Your task to perform on an android device: open app "ColorNote Notepad Notes" (install if not already installed), go to login, and select forgot password Image 0: 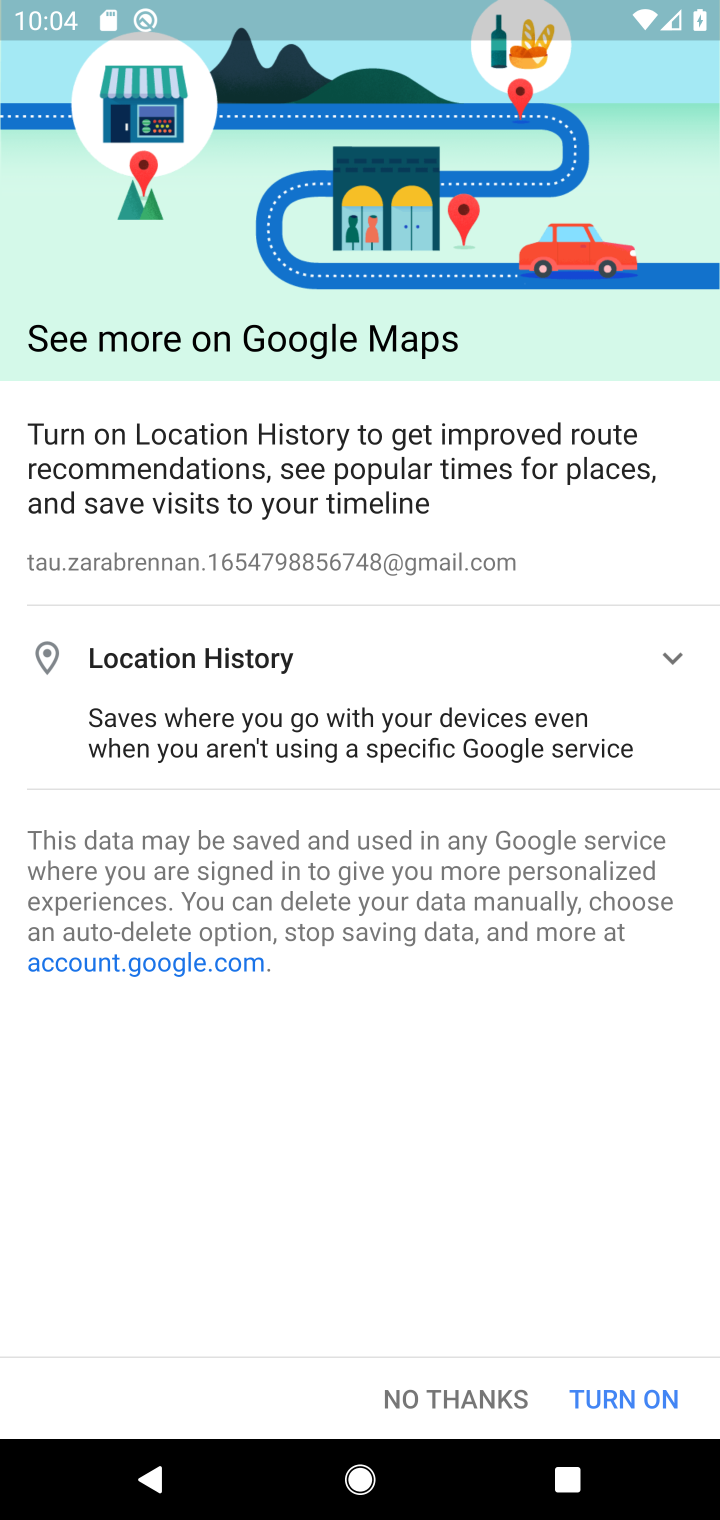
Step 0: press home button
Your task to perform on an android device: open app "ColorNote Notepad Notes" (install if not already installed), go to login, and select forgot password Image 1: 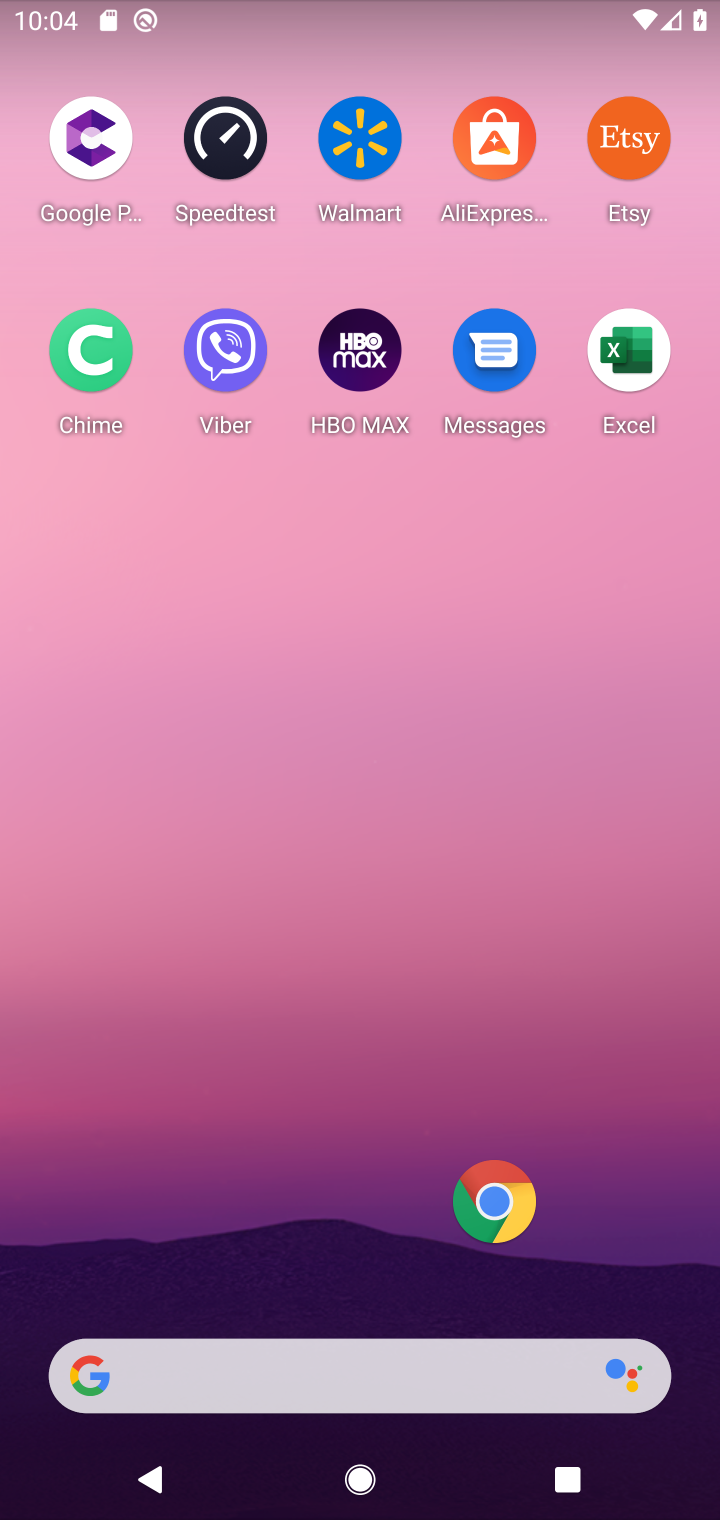
Step 1: drag from (314, 1191) to (380, 297)
Your task to perform on an android device: open app "ColorNote Notepad Notes" (install if not already installed), go to login, and select forgot password Image 2: 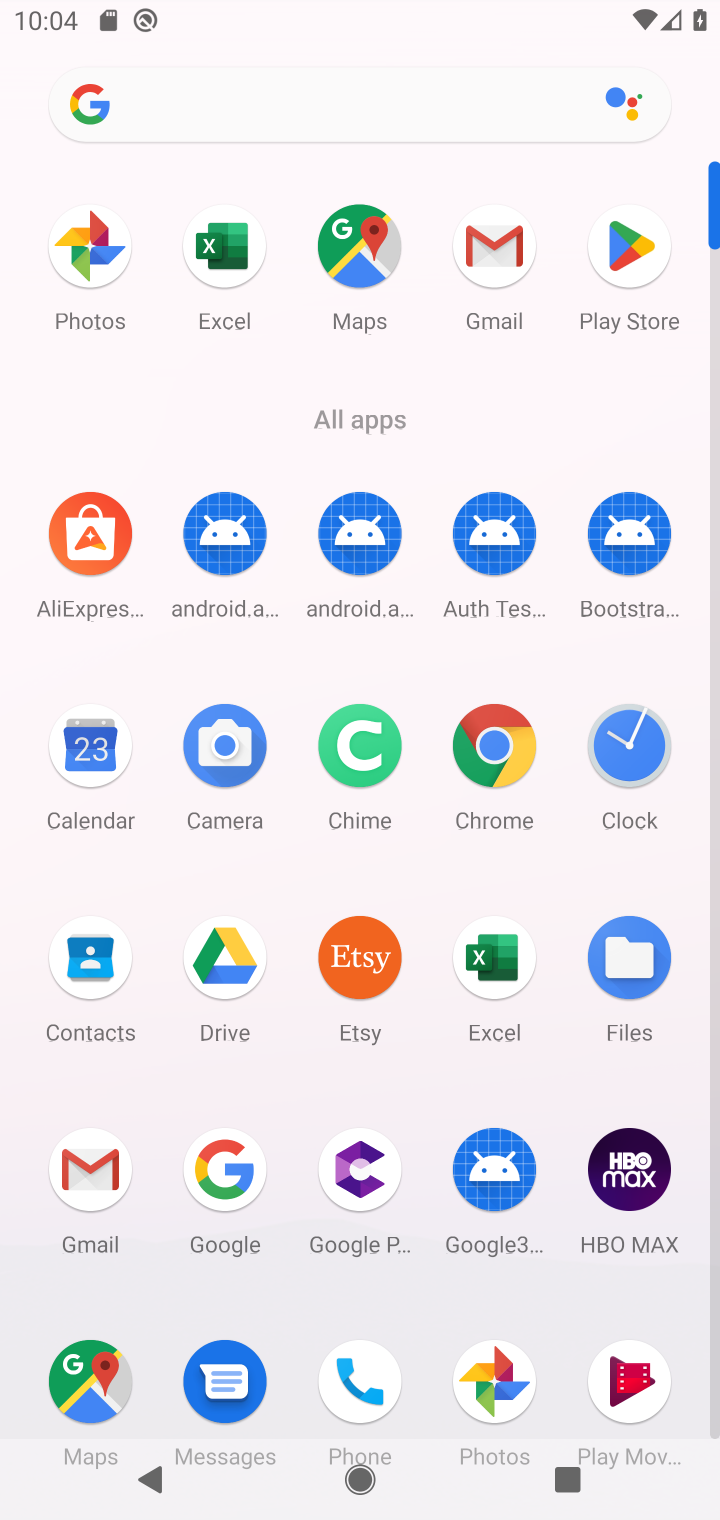
Step 2: click (618, 234)
Your task to perform on an android device: open app "ColorNote Notepad Notes" (install if not already installed), go to login, and select forgot password Image 3: 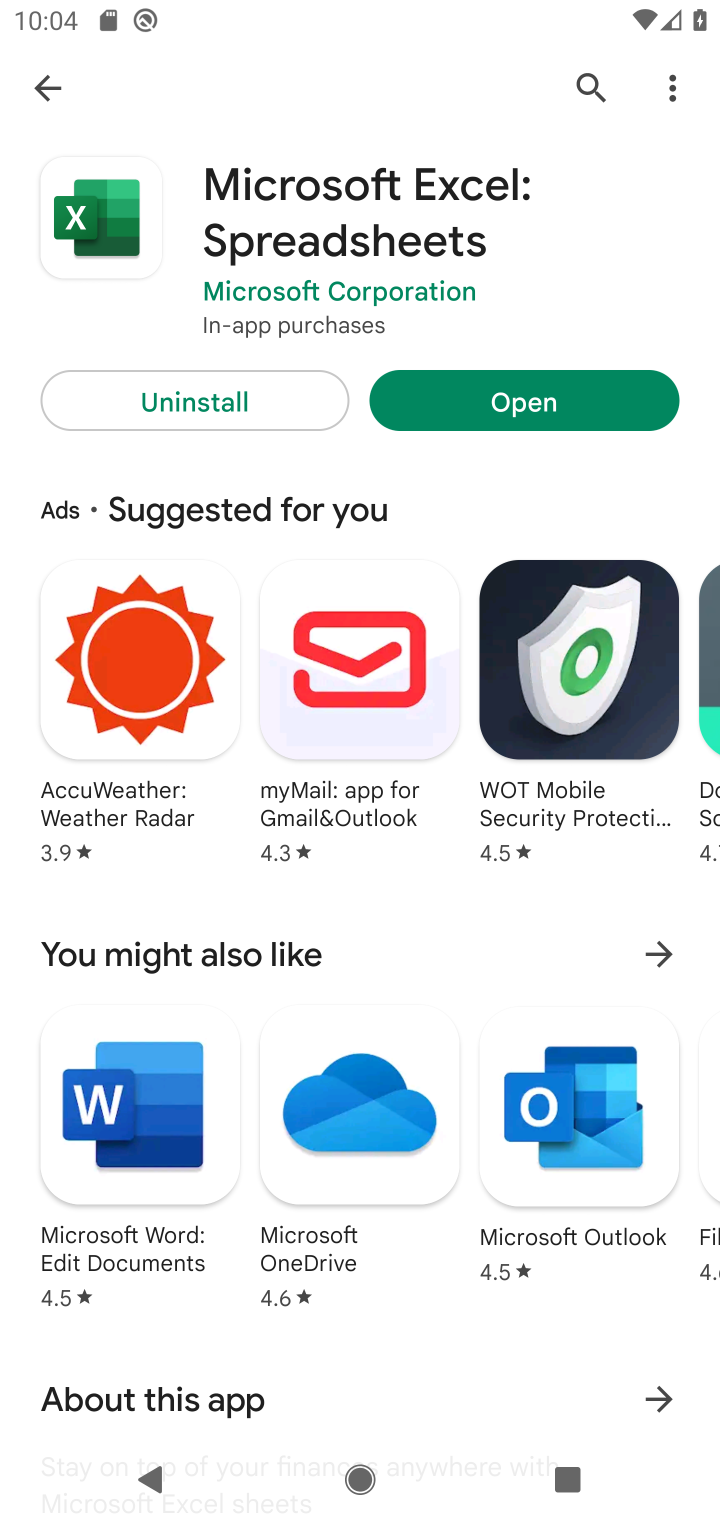
Step 3: click (43, 77)
Your task to perform on an android device: open app "ColorNote Notepad Notes" (install if not already installed), go to login, and select forgot password Image 4: 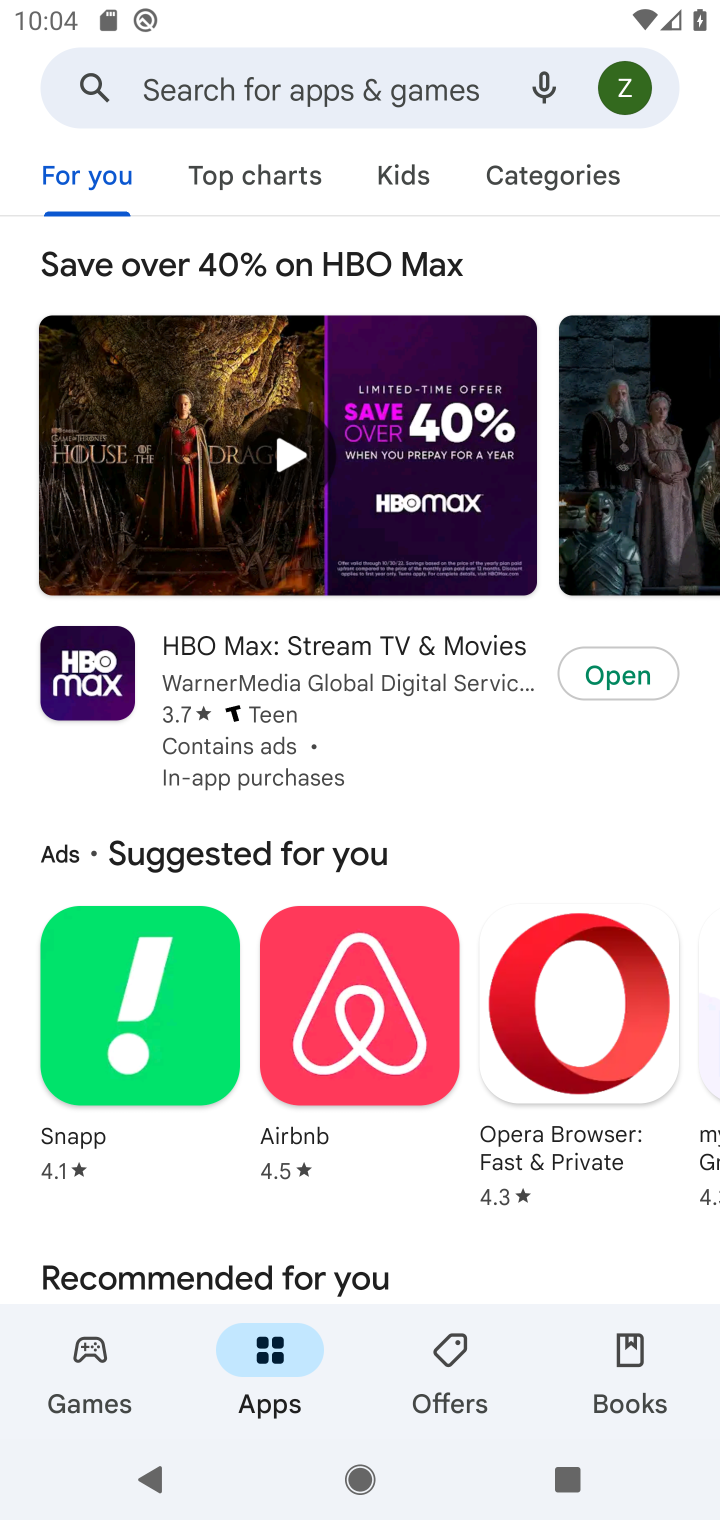
Step 4: click (239, 78)
Your task to perform on an android device: open app "ColorNote Notepad Notes" (install if not already installed), go to login, and select forgot password Image 5: 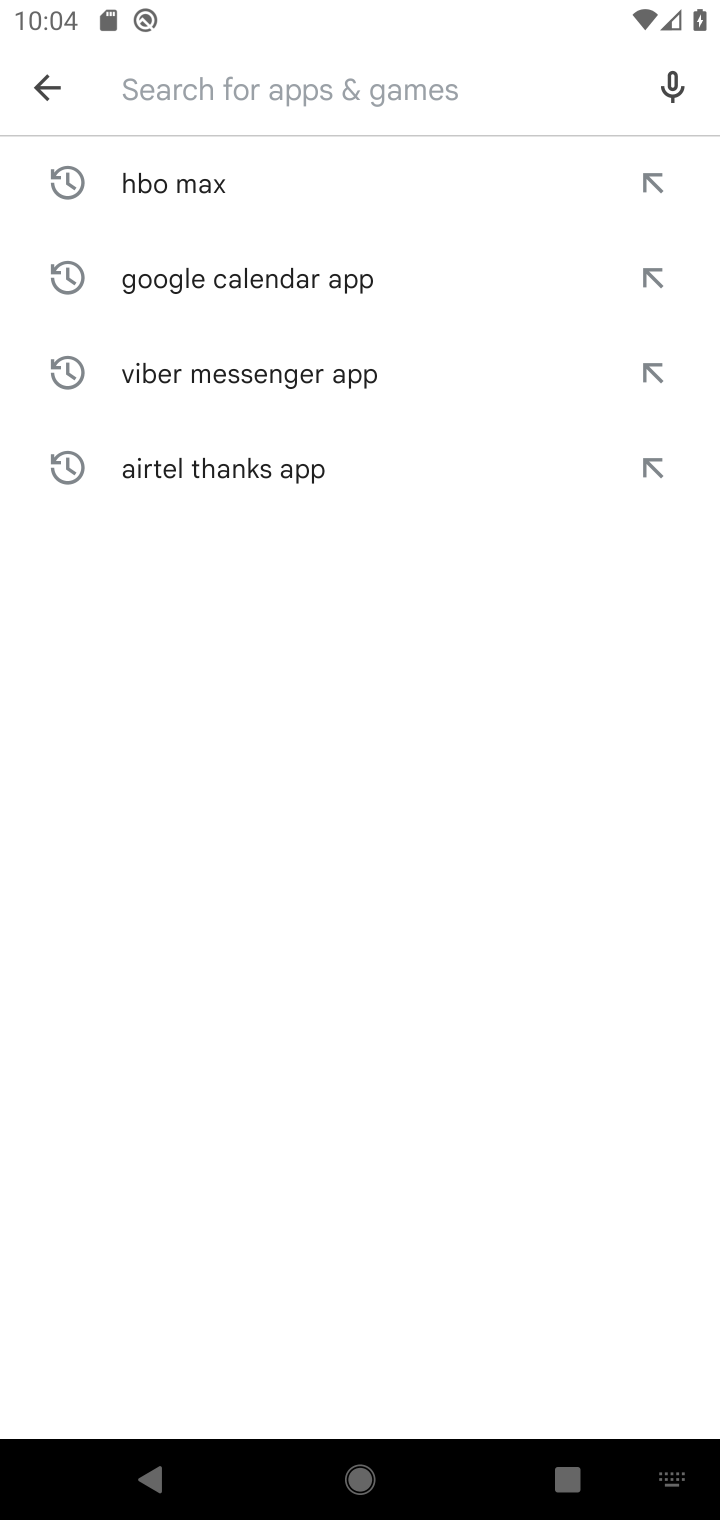
Step 5: type "ColorNote Notepad Notes "
Your task to perform on an android device: open app "ColorNote Notepad Notes" (install if not already installed), go to login, and select forgot password Image 6: 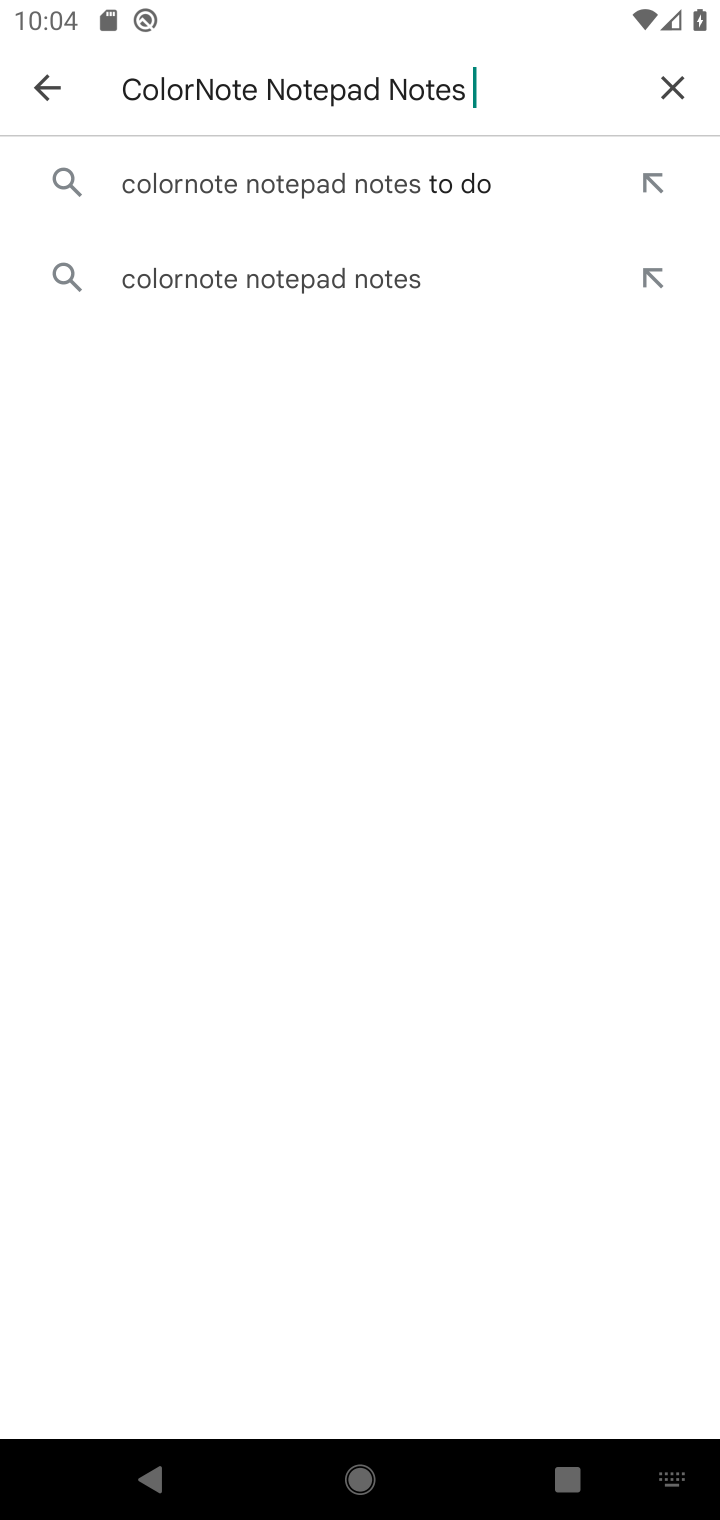
Step 6: click (332, 177)
Your task to perform on an android device: open app "ColorNote Notepad Notes" (install if not already installed), go to login, and select forgot password Image 7: 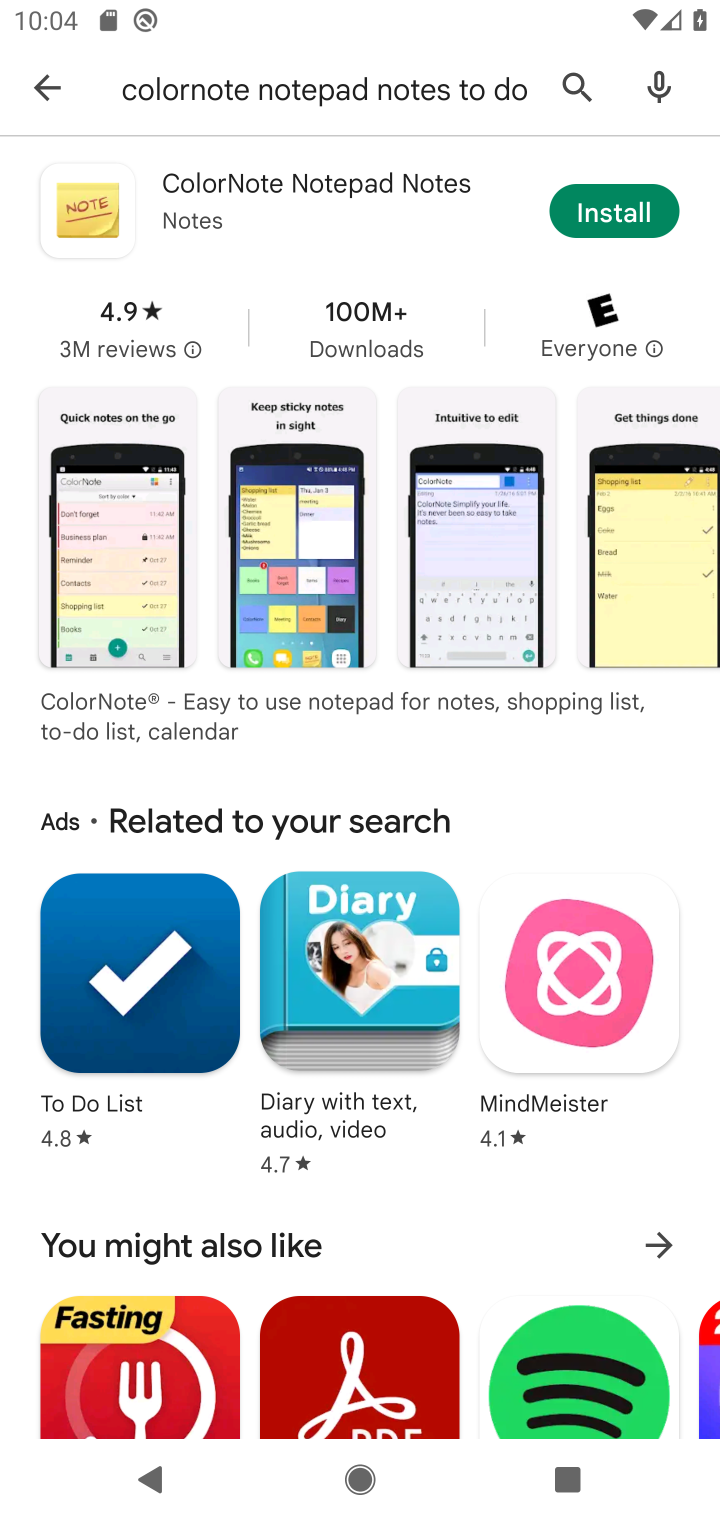
Step 7: click (626, 195)
Your task to perform on an android device: open app "ColorNote Notepad Notes" (install if not already installed), go to login, and select forgot password Image 8: 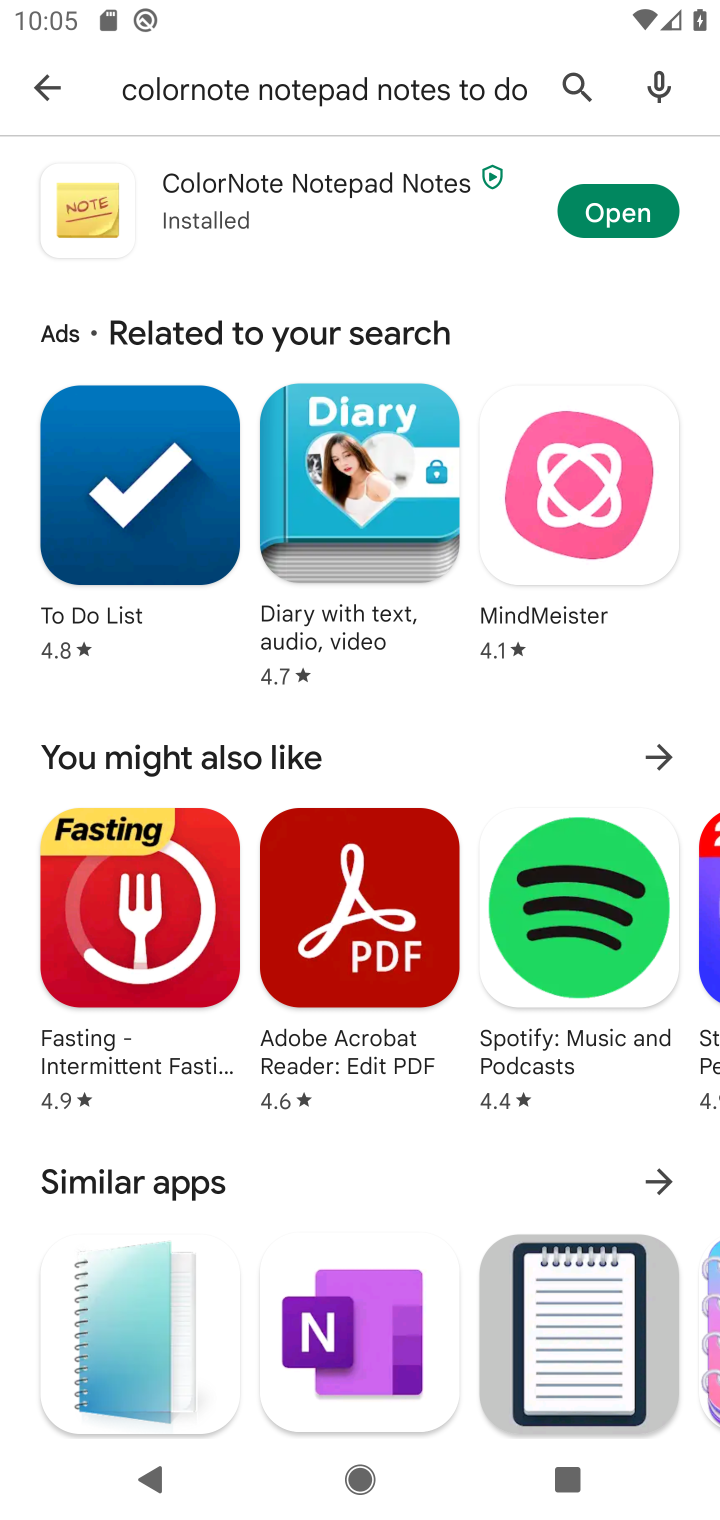
Step 8: task complete